Your task to perform on an android device: Open Android settings Image 0: 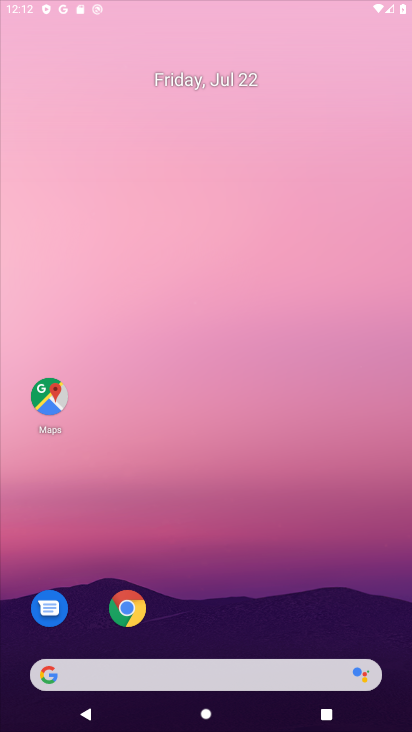
Step 0: press home button
Your task to perform on an android device: Open Android settings Image 1: 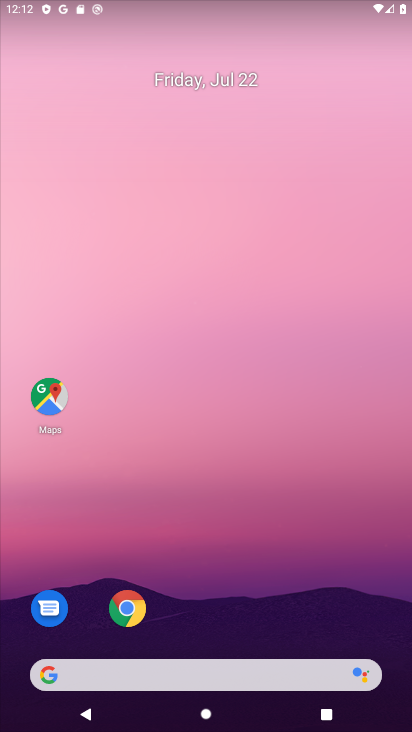
Step 1: drag from (220, 639) to (272, 32)
Your task to perform on an android device: Open Android settings Image 2: 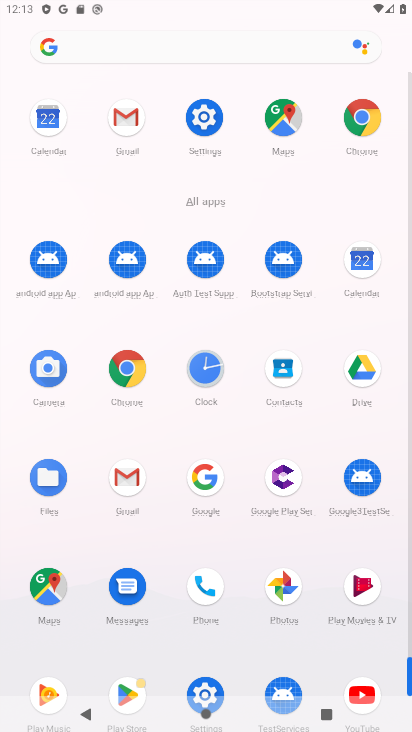
Step 2: click (203, 107)
Your task to perform on an android device: Open Android settings Image 3: 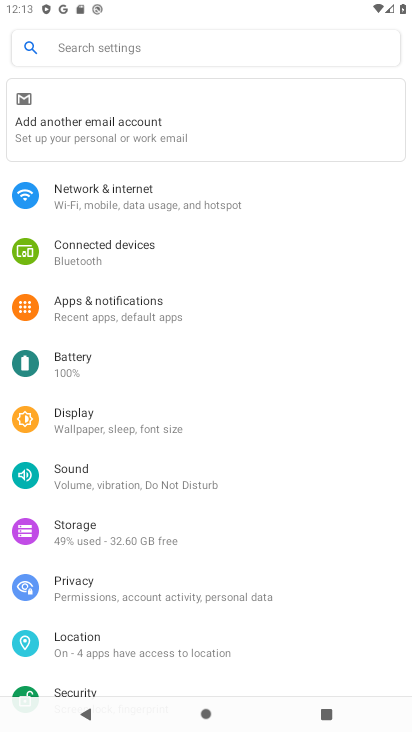
Step 3: drag from (172, 665) to (229, 78)
Your task to perform on an android device: Open Android settings Image 4: 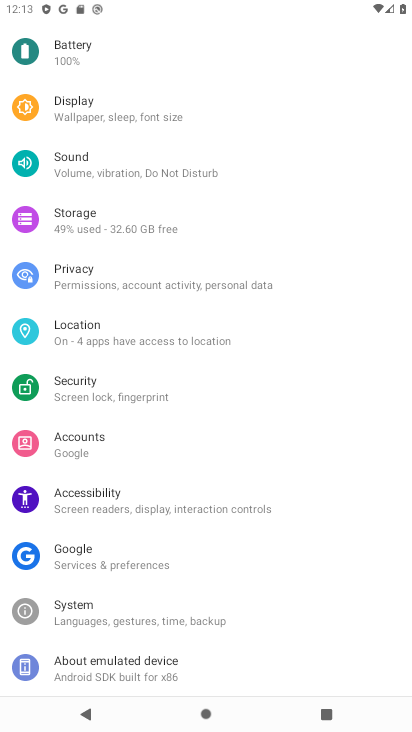
Step 4: click (200, 663)
Your task to perform on an android device: Open Android settings Image 5: 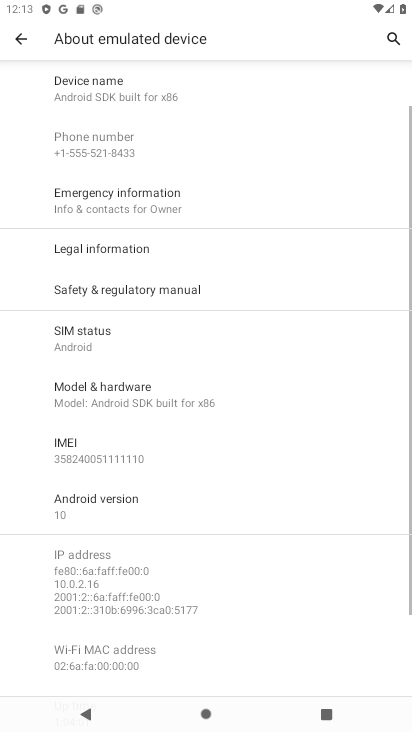
Step 5: click (113, 515)
Your task to perform on an android device: Open Android settings Image 6: 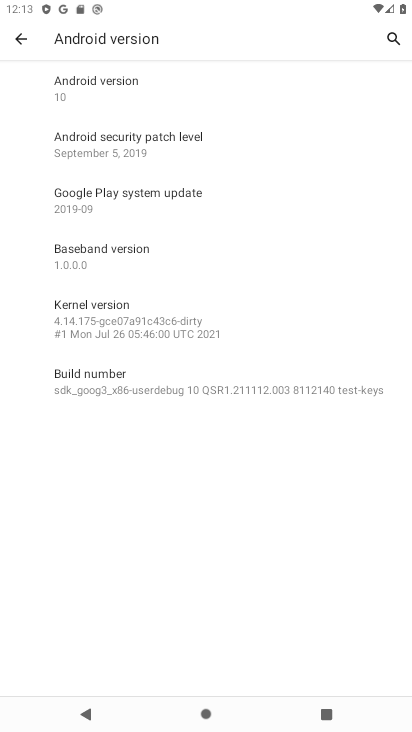
Step 6: task complete